Your task to perform on an android device: see sites visited before in the chrome app Image 0: 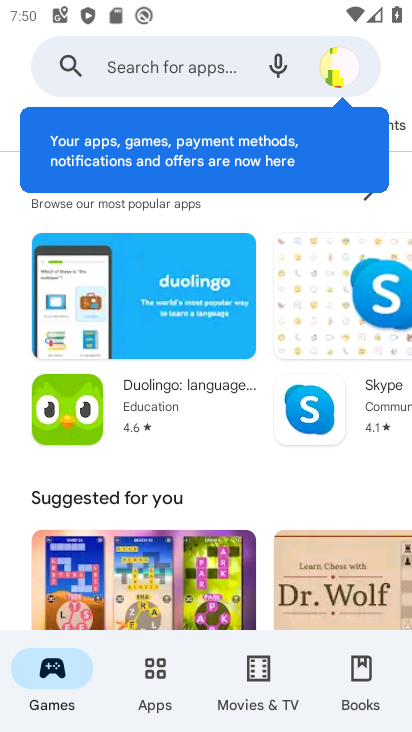
Step 0: press home button
Your task to perform on an android device: see sites visited before in the chrome app Image 1: 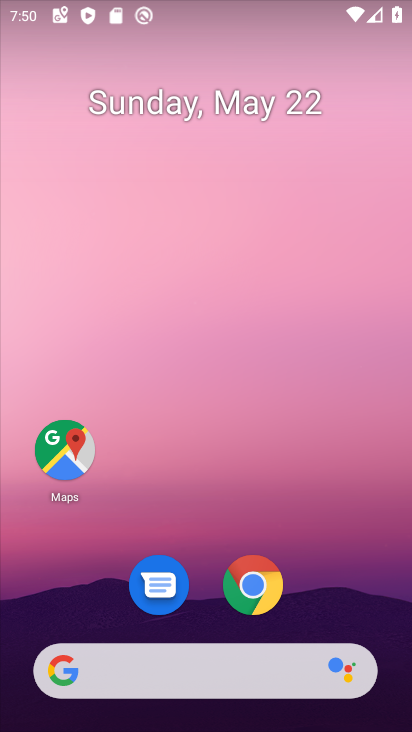
Step 1: click (266, 580)
Your task to perform on an android device: see sites visited before in the chrome app Image 2: 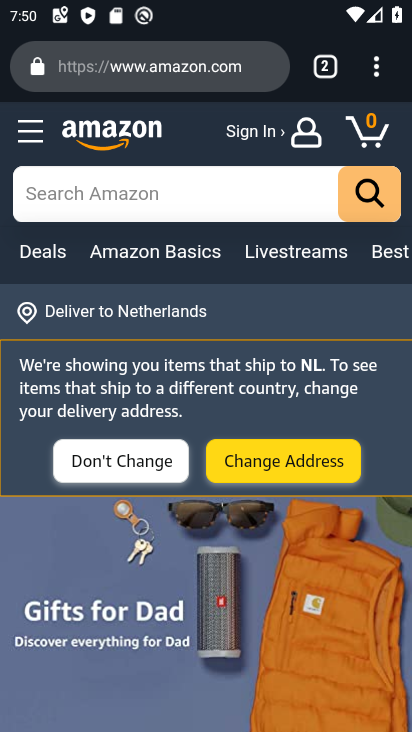
Step 2: click (377, 63)
Your task to perform on an android device: see sites visited before in the chrome app Image 3: 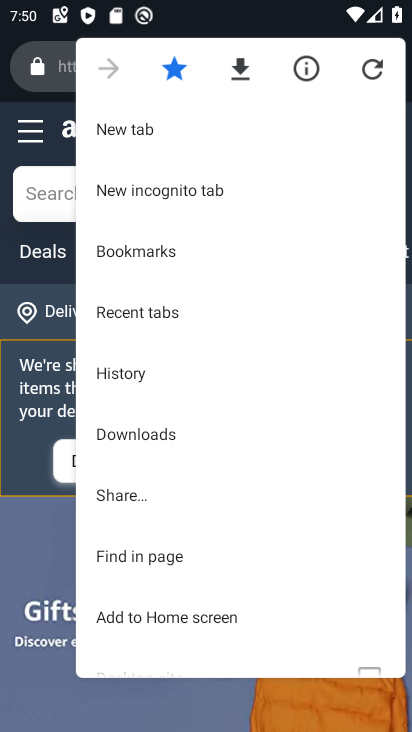
Step 3: click (159, 308)
Your task to perform on an android device: see sites visited before in the chrome app Image 4: 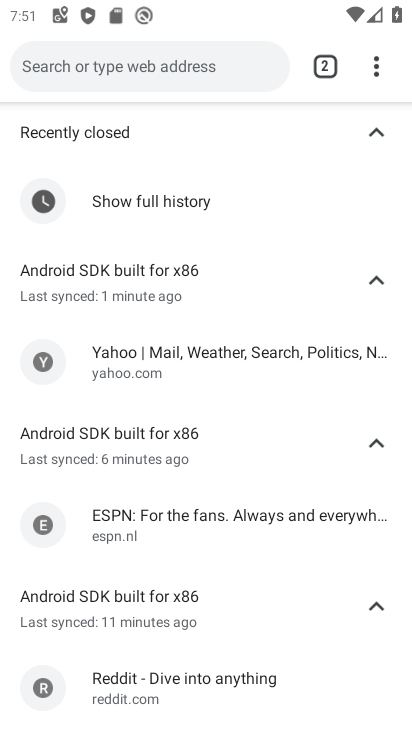
Step 4: task complete